Your task to perform on an android device: Open battery settings Image 0: 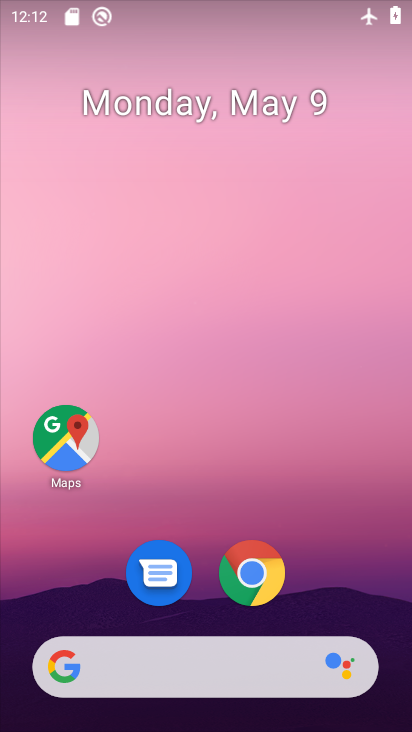
Step 0: drag from (190, 606) to (251, 268)
Your task to perform on an android device: Open battery settings Image 1: 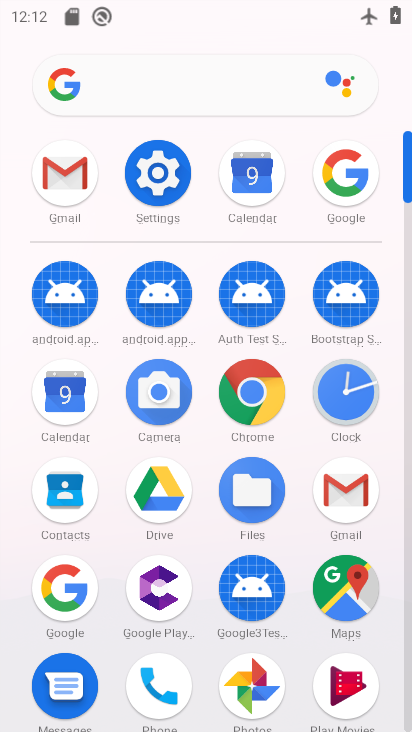
Step 1: click (157, 183)
Your task to perform on an android device: Open battery settings Image 2: 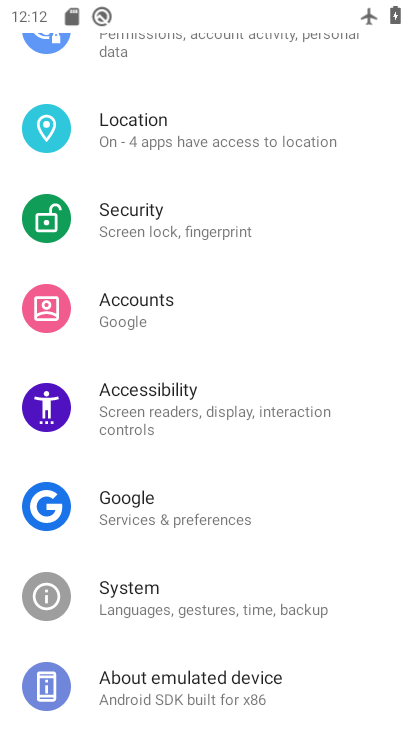
Step 2: drag from (175, 278) to (154, 668)
Your task to perform on an android device: Open battery settings Image 3: 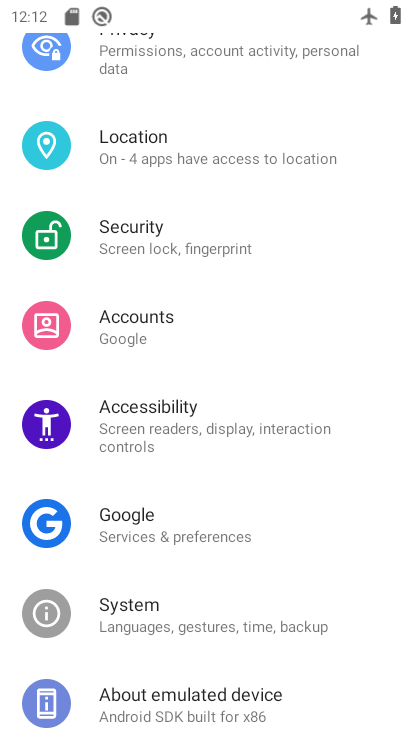
Step 3: drag from (162, 133) to (166, 525)
Your task to perform on an android device: Open battery settings Image 4: 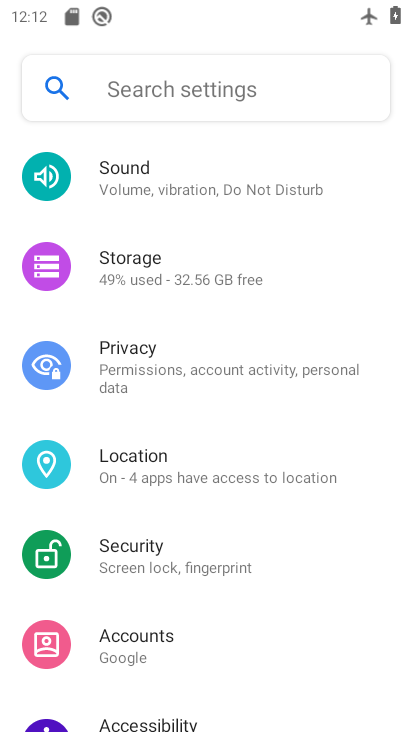
Step 4: click (188, 486)
Your task to perform on an android device: Open battery settings Image 5: 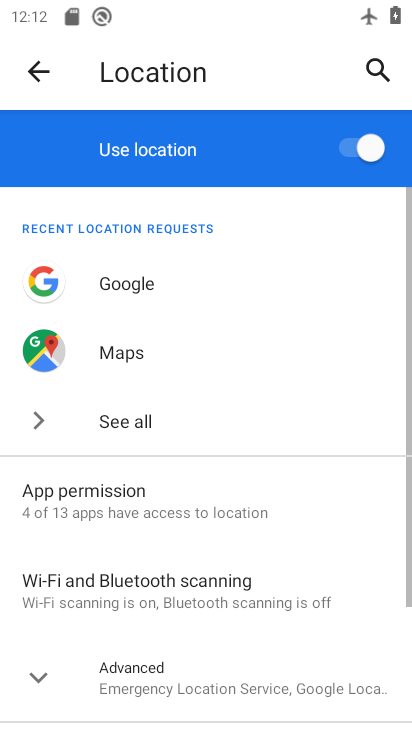
Step 5: click (40, 75)
Your task to perform on an android device: Open battery settings Image 6: 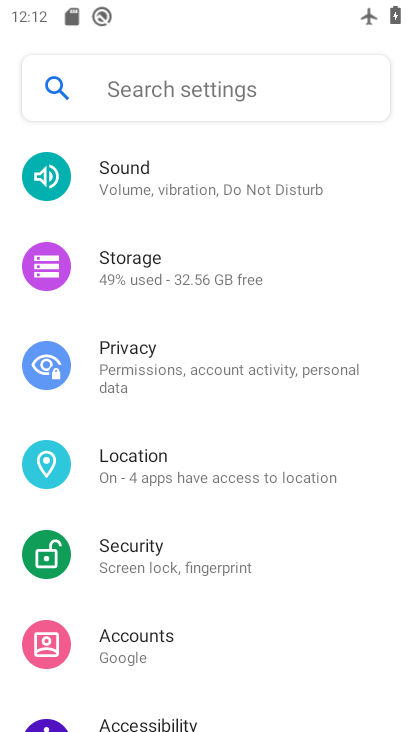
Step 6: drag from (242, 346) to (240, 561)
Your task to perform on an android device: Open battery settings Image 7: 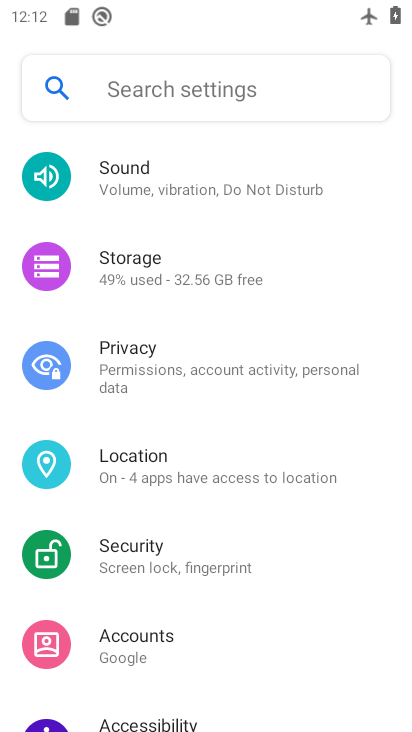
Step 7: drag from (222, 137) to (192, 533)
Your task to perform on an android device: Open battery settings Image 8: 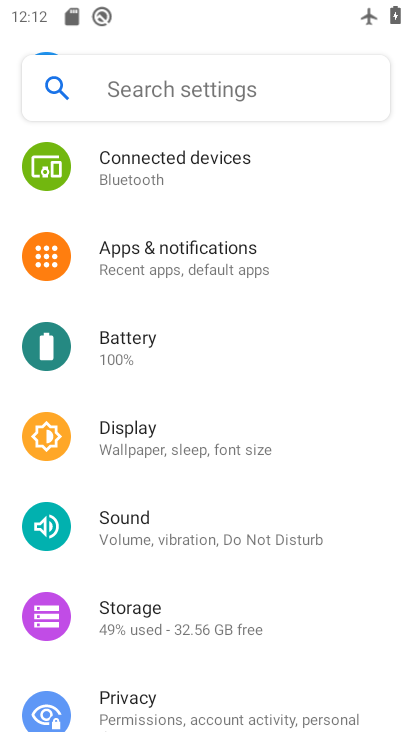
Step 8: click (126, 348)
Your task to perform on an android device: Open battery settings Image 9: 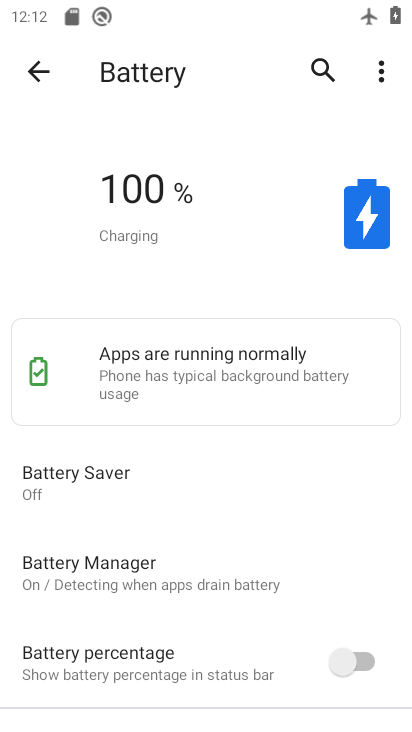
Step 9: task complete